Your task to perform on an android device: find snoozed emails in the gmail app Image 0: 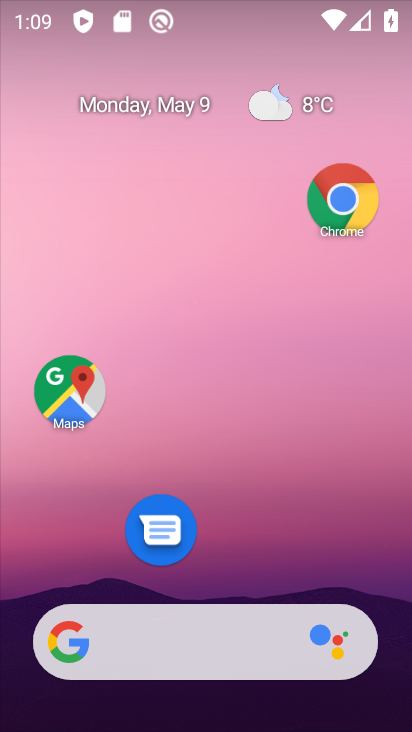
Step 0: drag from (248, 519) to (244, 53)
Your task to perform on an android device: find snoozed emails in the gmail app Image 1: 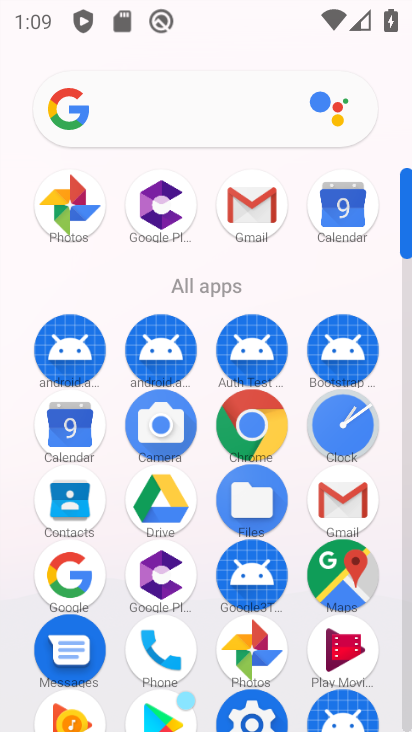
Step 1: click (252, 196)
Your task to perform on an android device: find snoozed emails in the gmail app Image 2: 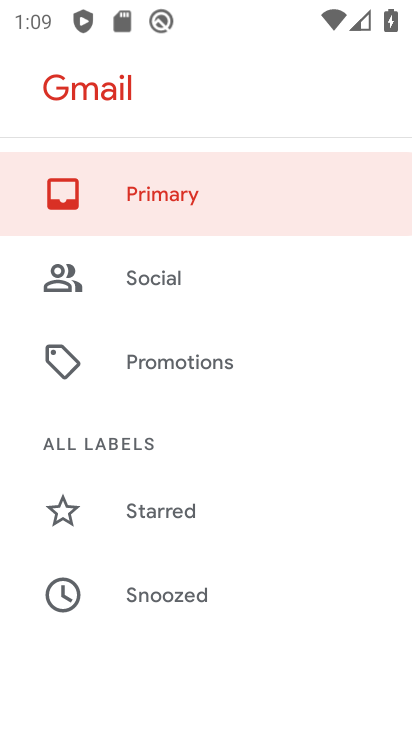
Step 2: drag from (202, 483) to (188, 272)
Your task to perform on an android device: find snoozed emails in the gmail app Image 3: 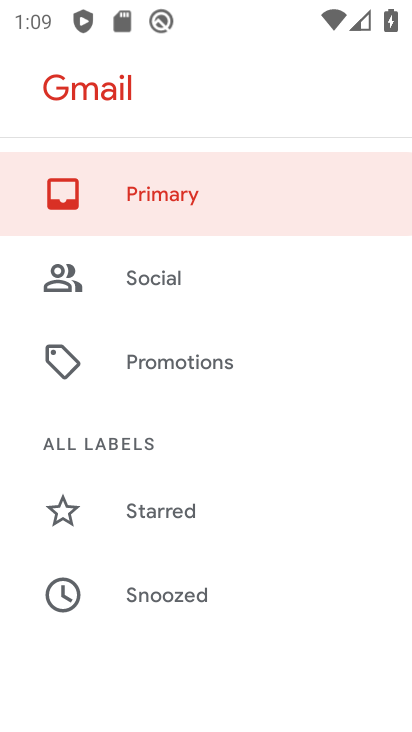
Step 3: click (168, 599)
Your task to perform on an android device: find snoozed emails in the gmail app Image 4: 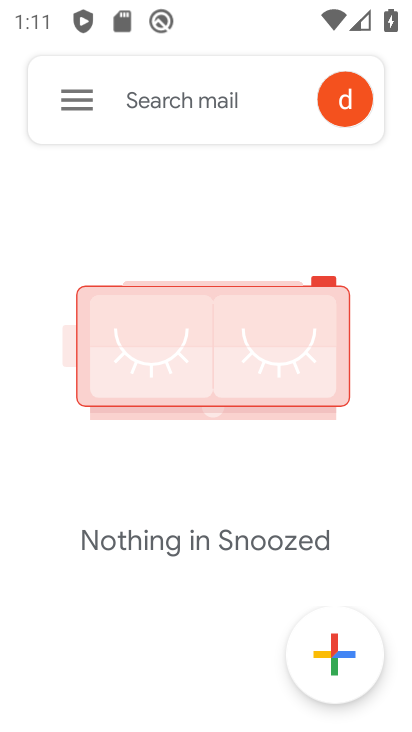
Step 4: task complete